Your task to perform on an android device: allow cookies in the chrome app Image 0: 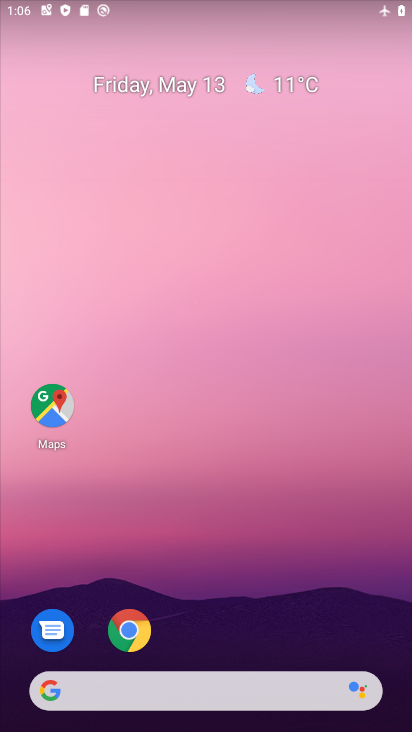
Step 0: click (141, 633)
Your task to perform on an android device: allow cookies in the chrome app Image 1: 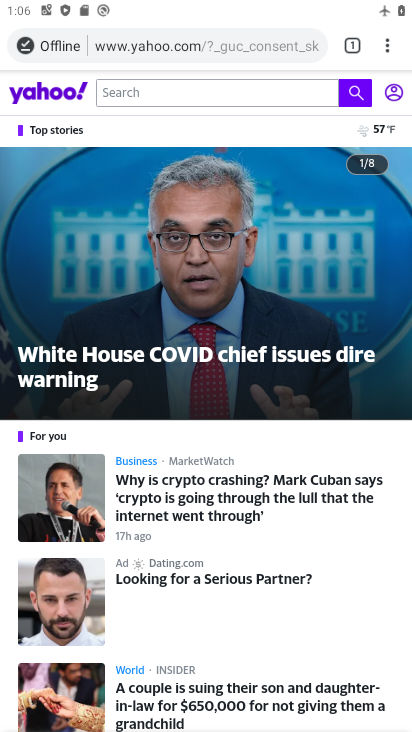
Step 1: drag from (386, 48) to (206, 495)
Your task to perform on an android device: allow cookies in the chrome app Image 2: 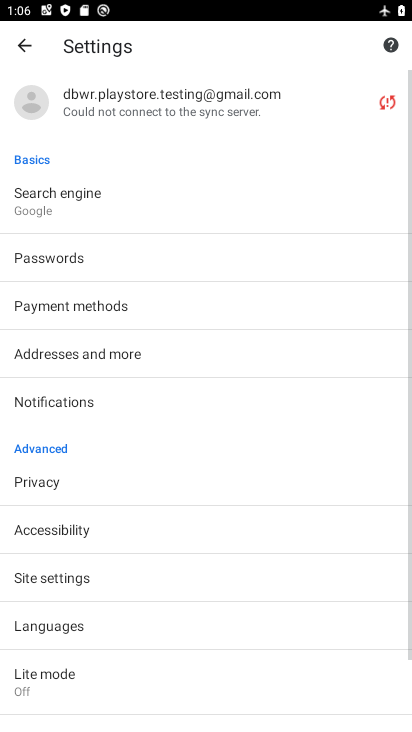
Step 2: click (47, 579)
Your task to perform on an android device: allow cookies in the chrome app Image 3: 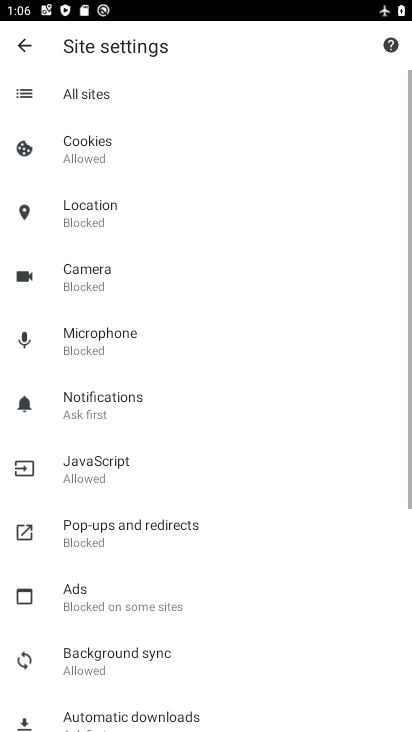
Step 3: click (90, 142)
Your task to perform on an android device: allow cookies in the chrome app Image 4: 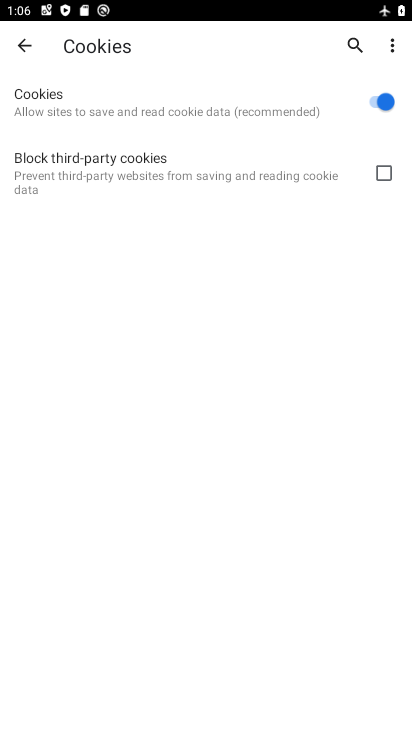
Step 4: task complete